Your task to perform on an android device: Search for "macbook" on target, select the first entry, add it to the cart, then select checkout. Image 0: 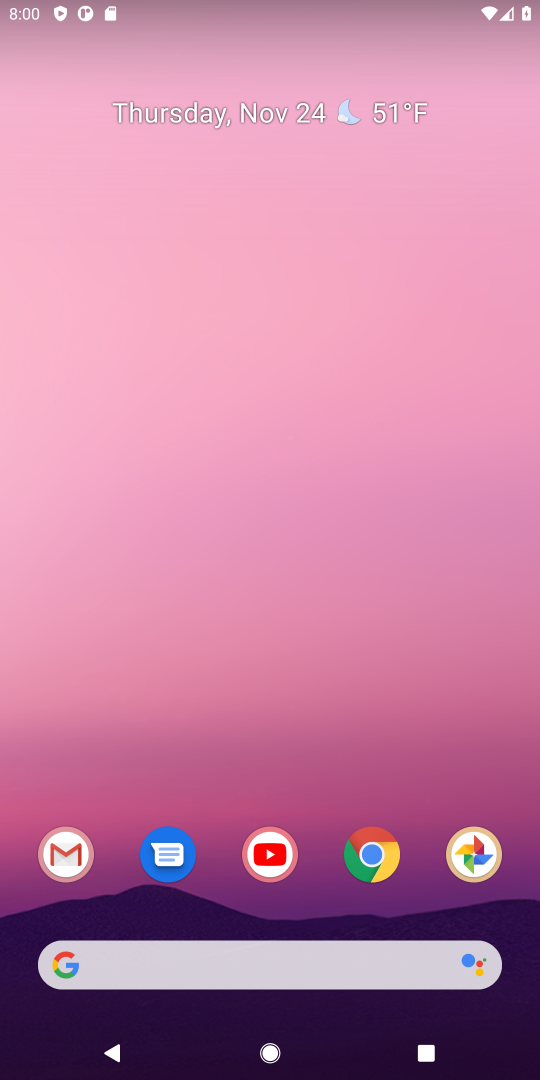
Step 0: click (365, 848)
Your task to perform on an android device: Search for "macbook" on target, select the first entry, add it to the cart, then select checkout. Image 1: 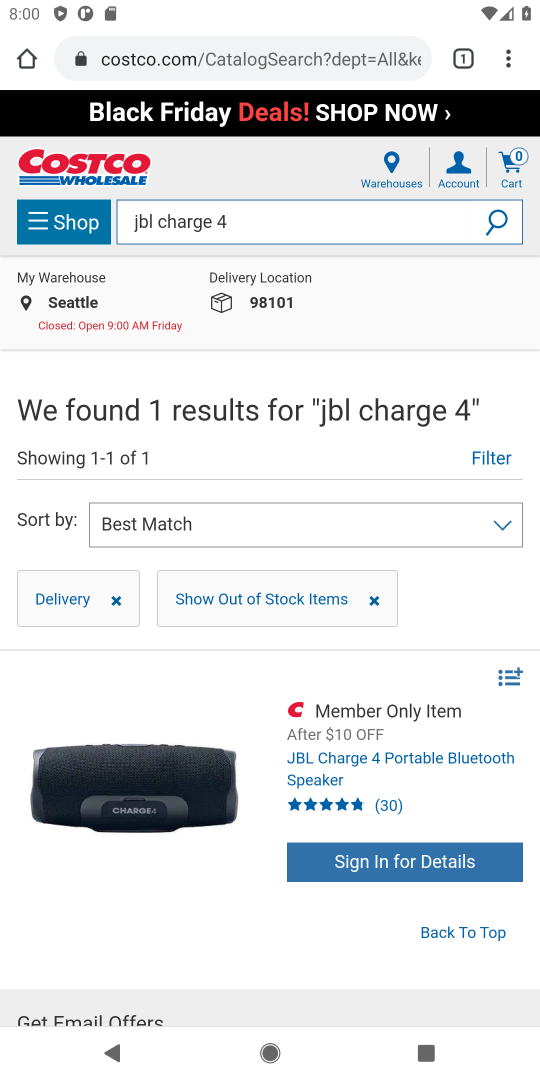
Step 1: click (262, 63)
Your task to perform on an android device: Search for "macbook" on target, select the first entry, add it to the cart, then select checkout. Image 2: 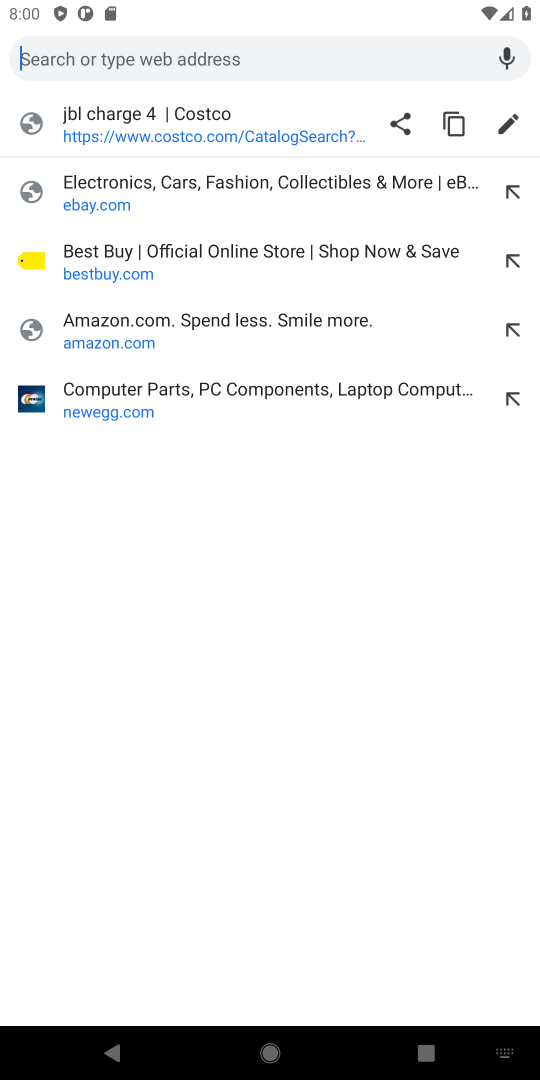
Step 2: type "target.com"
Your task to perform on an android device: Search for "macbook" on target, select the first entry, add it to the cart, then select checkout. Image 3: 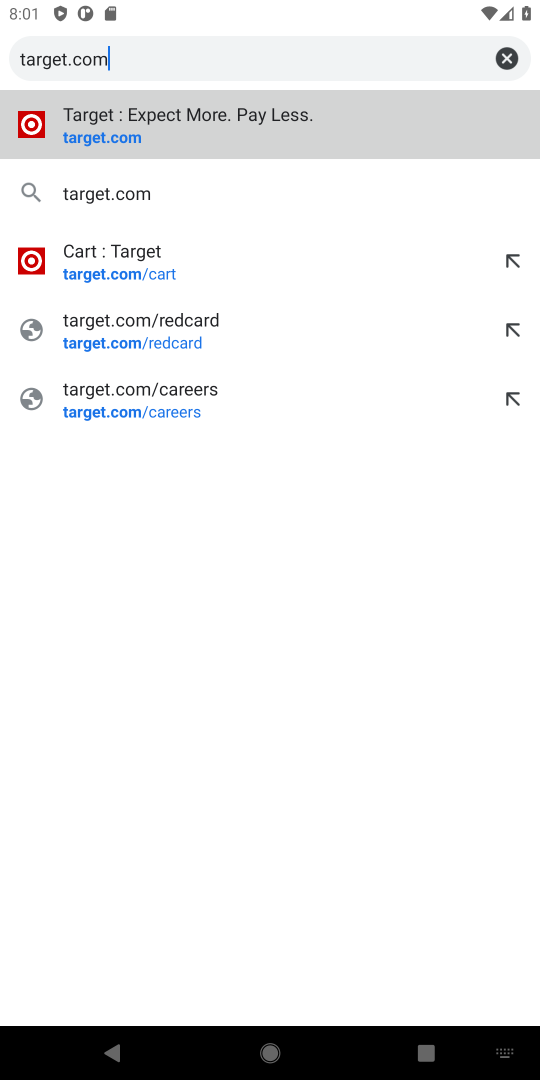
Step 3: click (90, 129)
Your task to perform on an android device: Search for "macbook" on target, select the first entry, add it to the cart, then select checkout. Image 4: 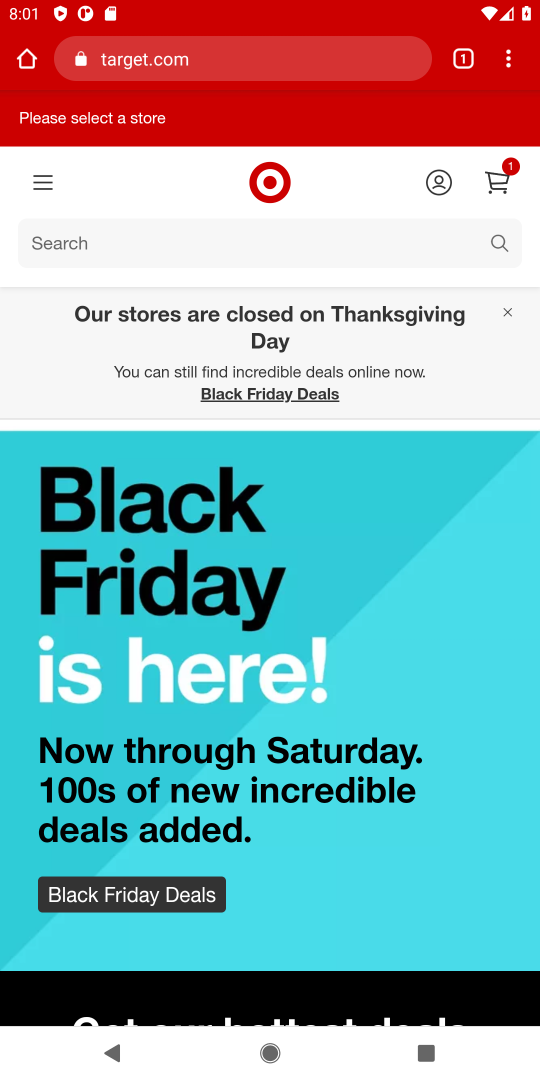
Step 4: click (502, 239)
Your task to perform on an android device: Search for "macbook" on target, select the first entry, add it to the cart, then select checkout. Image 5: 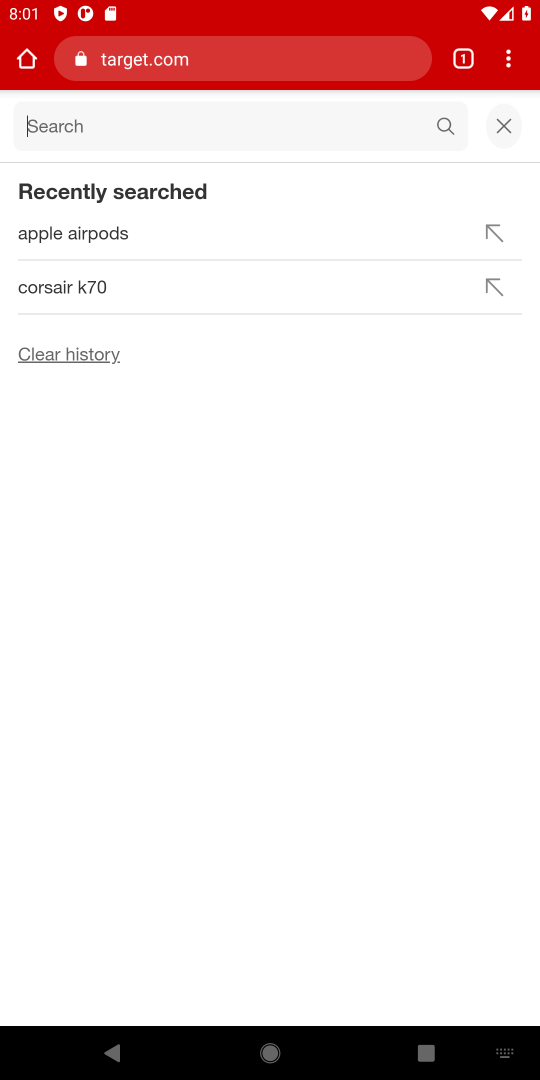
Step 5: type "macbook"
Your task to perform on an android device: Search for "macbook" on target, select the first entry, add it to the cart, then select checkout. Image 6: 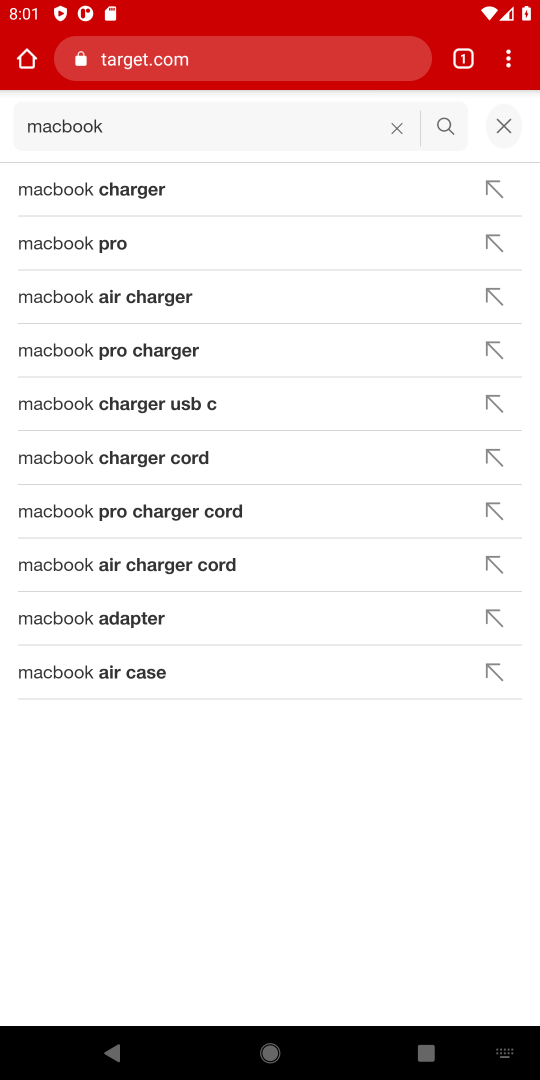
Step 6: click (458, 132)
Your task to perform on an android device: Search for "macbook" on target, select the first entry, add it to the cart, then select checkout. Image 7: 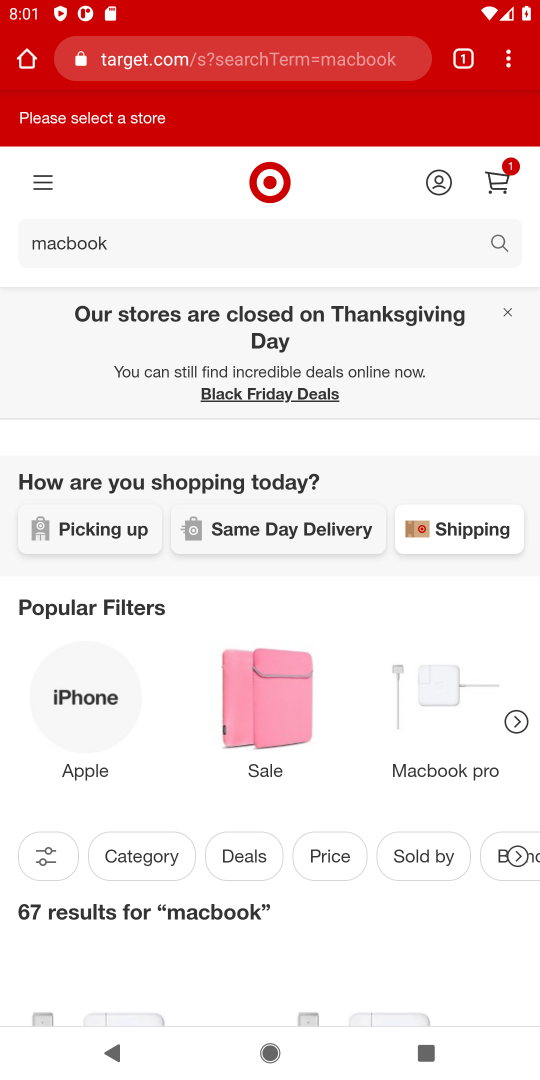
Step 7: drag from (150, 665) to (162, 292)
Your task to perform on an android device: Search for "macbook" on target, select the first entry, add it to the cart, then select checkout. Image 8: 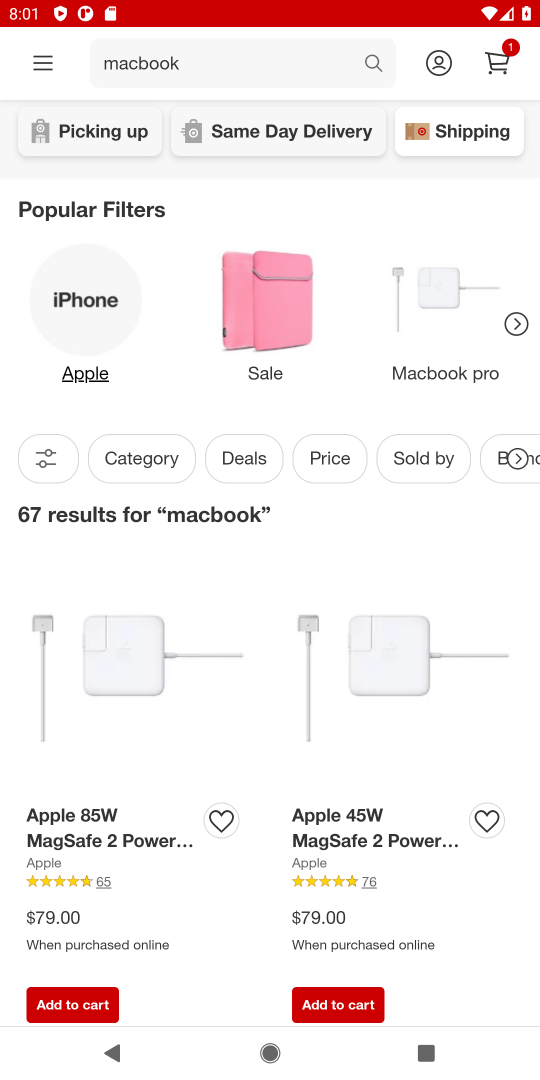
Step 8: click (110, 723)
Your task to perform on an android device: Search for "macbook" on target, select the first entry, add it to the cart, then select checkout. Image 9: 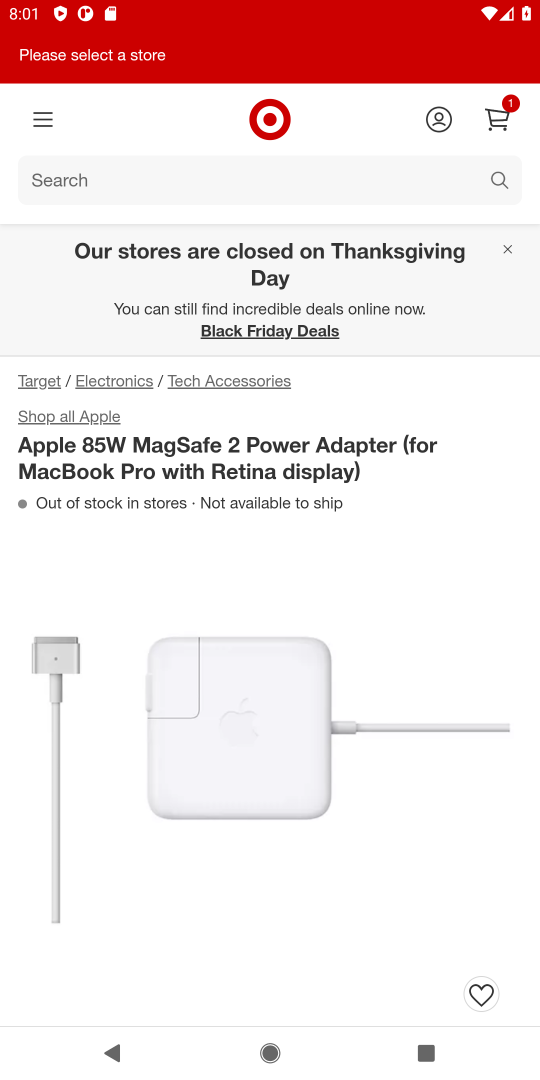
Step 9: drag from (211, 790) to (243, 328)
Your task to perform on an android device: Search for "macbook" on target, select the first entry, add it to the cart, then select checkout. Image 10: 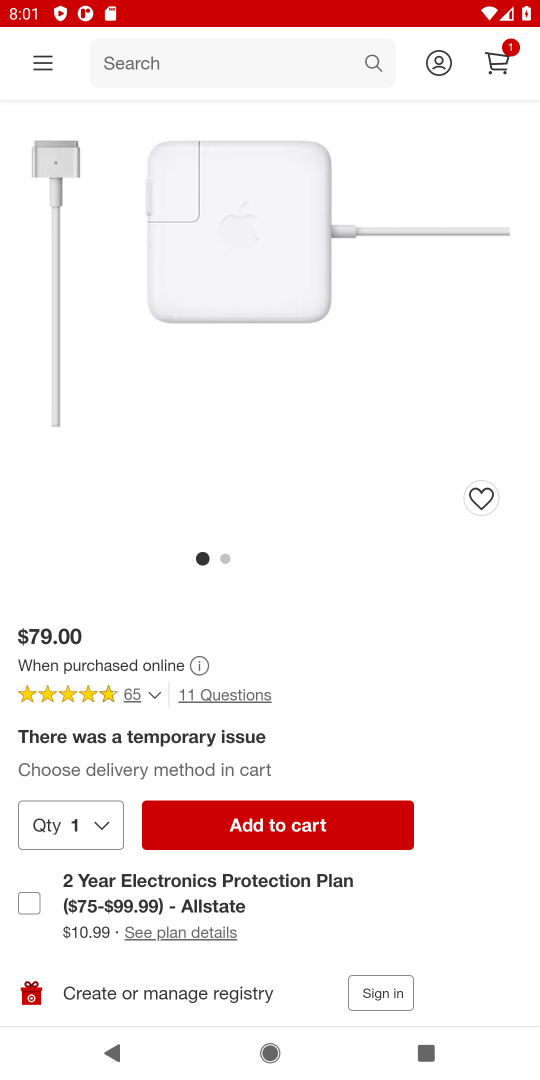
Step 10: click (240, 823)
Your task to perform on an android device: Search for "macbook" on target, select the first entry, add it to the cart, then select checkout. Image 11: 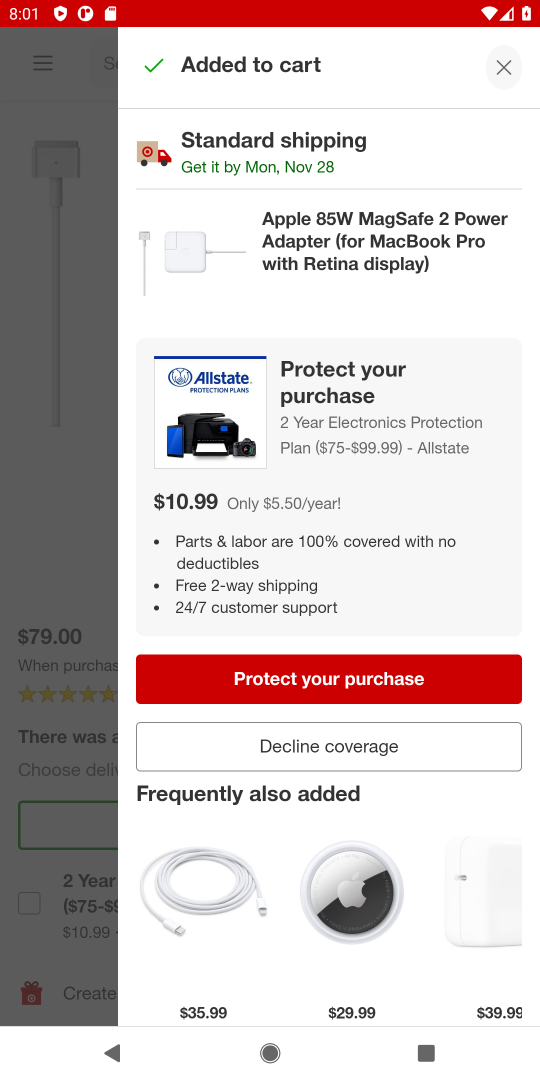
Step 11: click (502, 67)
Your task to perform on an android device: Search for "macbook" on target, select the first entry, add it to the cart, then select checkout. Image 12: 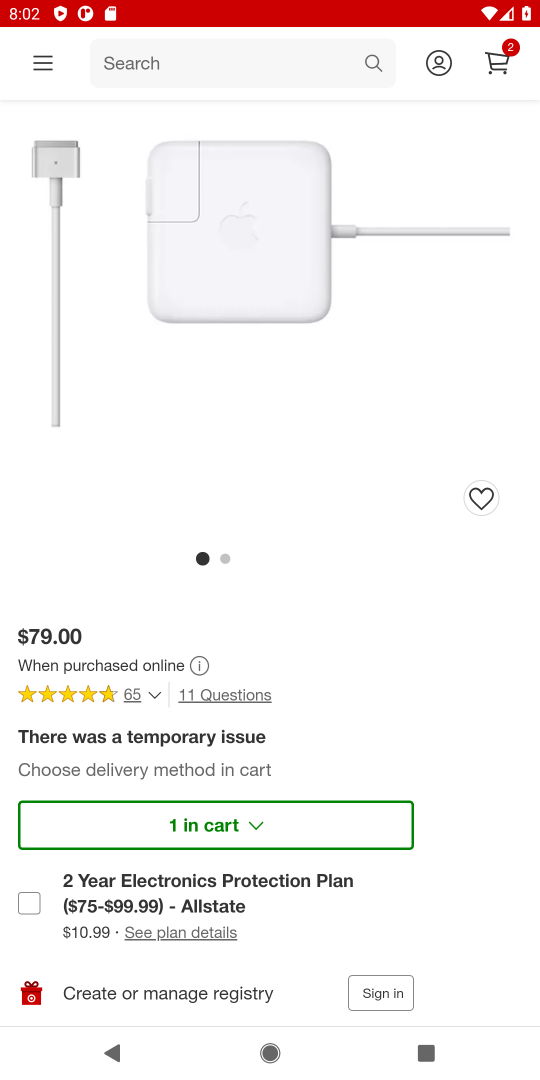
Step 12: click (504, 56)
Your task to perform on an android device: Search for "macbook" on target, select the first entry, add it to the cart, then select checkout. Image 13: 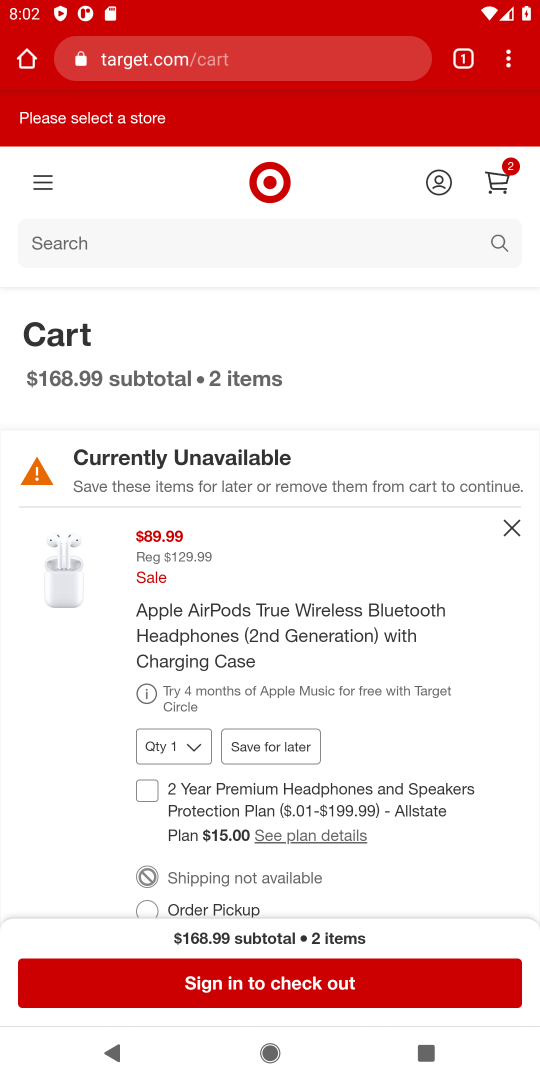
Step 13: drag from (261, 747) to (253, 488)
Your task to perform on an android device: Search for "macbook" on target, select the first entry, add it to the cart, then select checkout. Image 14: 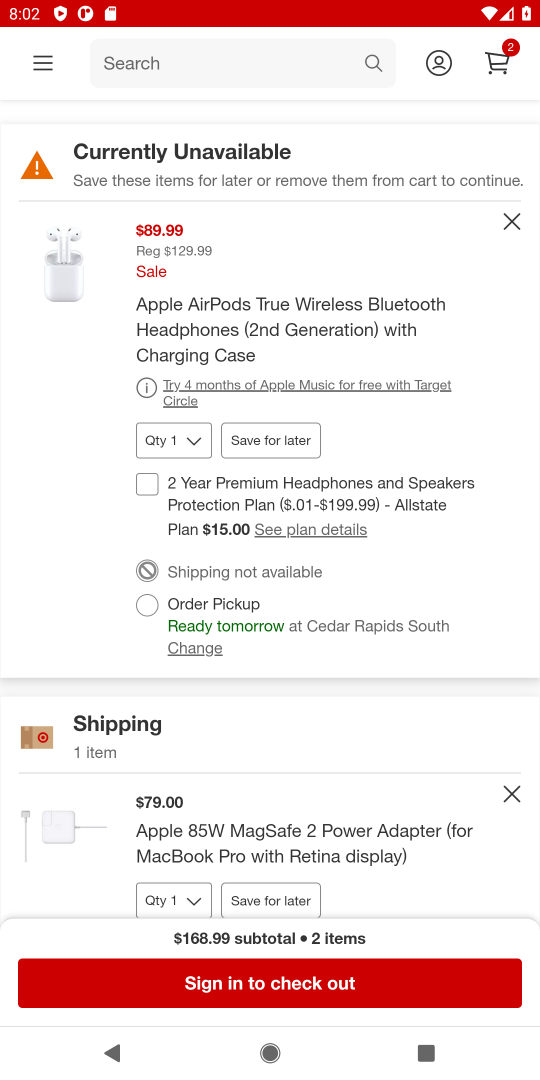
Step 14: click (239, 989)
Your task to perform on an android device: Search for "macbook" on target, select the first entry, add it to the cart, then select checkout. Image 15: 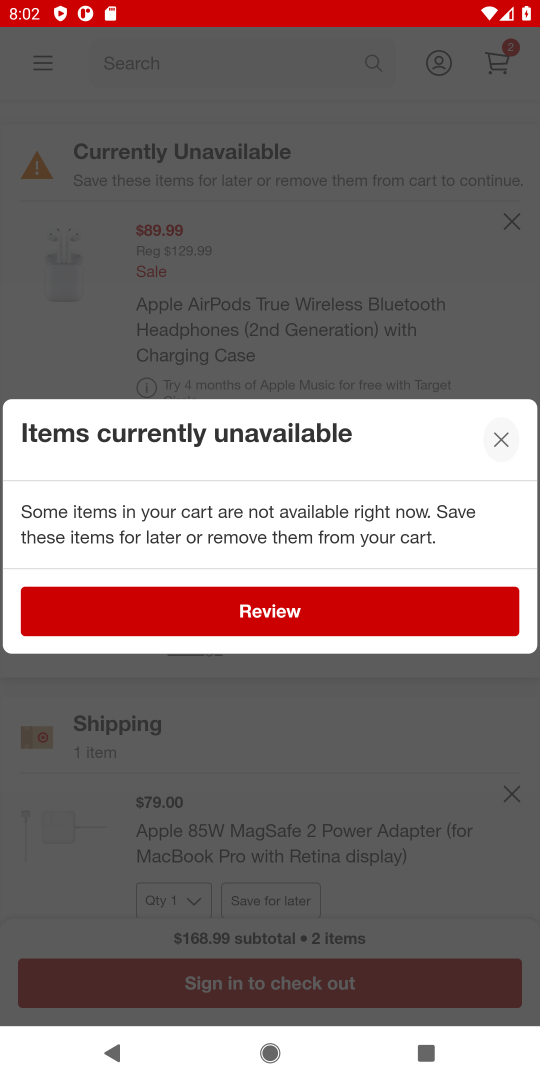
Step 15: task complete